Your task to perform on an android device: turn off data saver in the chrome app Image 0: 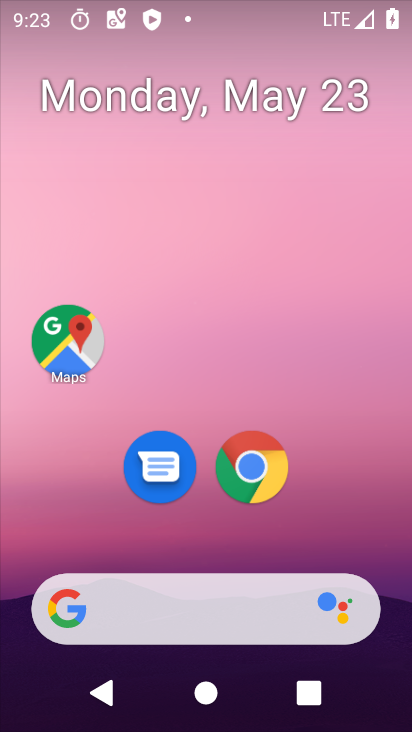
Step 0: click (268, 465)
Your task to perform on an android device: turn off data saver in the chrome app Image 1: 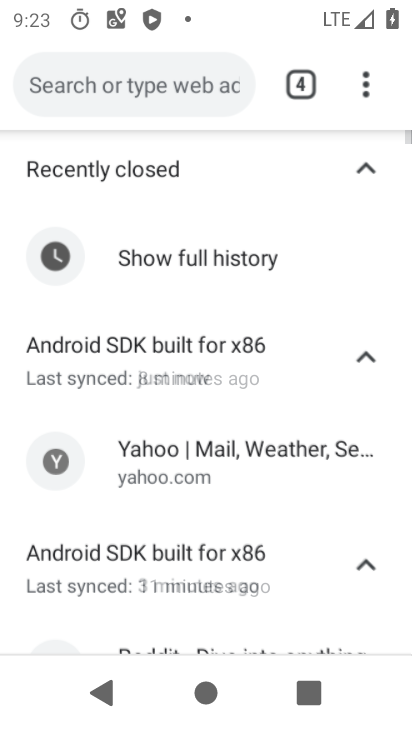
Step 1: click (370, 68)
Your task to perform on an android device: turn off data saver in the chrome app Image 2: 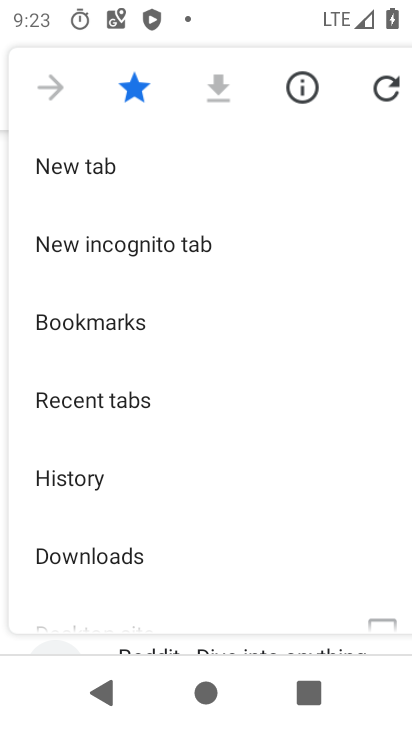
Step 2: drag from (238, 565) to (224, 119)
Your task to perform on an android device: turn off data saver in the chrome app Image 3: 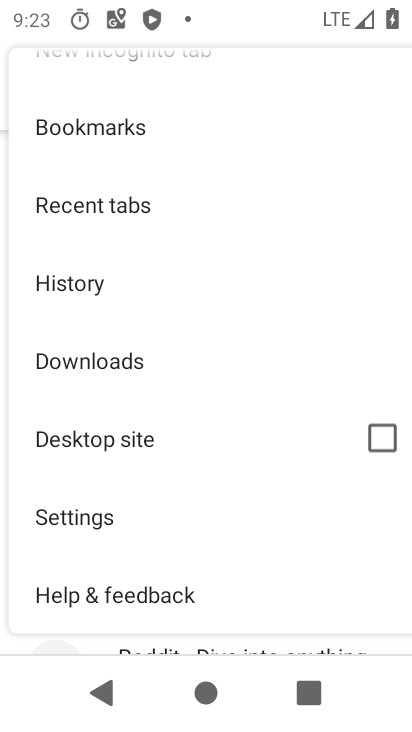
Step 3: click (160, 501)
Your task to perform on an android device: turn off data saver in the chrome app Image 4: 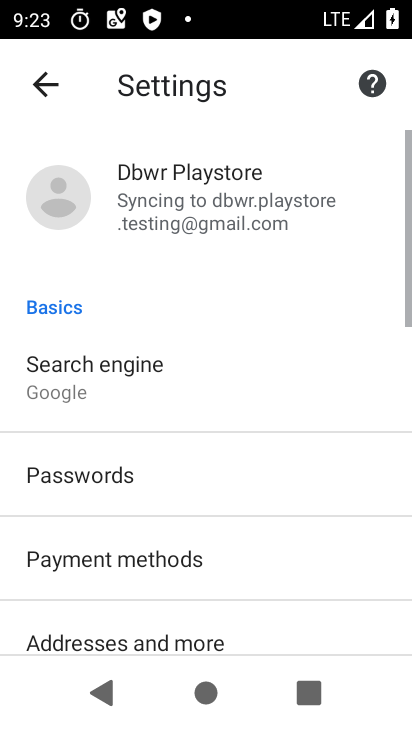
Step 4: drag from (215, 566) to (193, 145)
Your task to perform on an android device: turn off data saver in the chrome app Image 5: 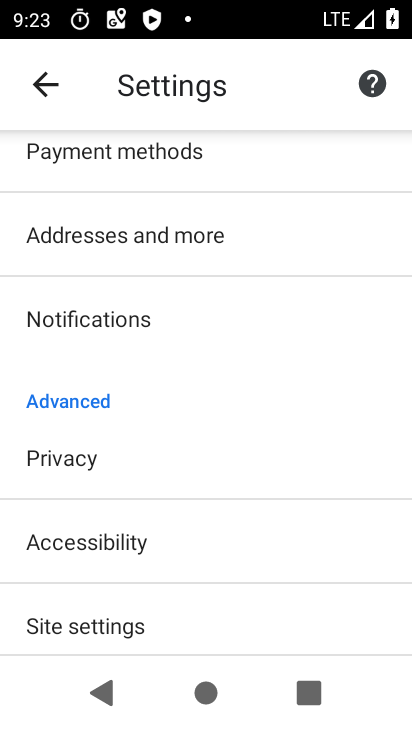
Step 5: drag from (199, 598) to (196, 154)
Your task to perform on an android device: turn off data saver in the chrome app Image 6: 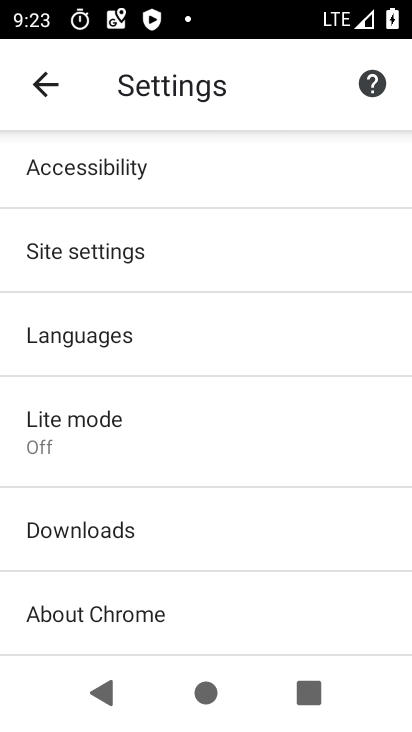
Step 6: click (148, 421)
Your task to perform on an android device: turn off data saver in the chrome app Image 7: 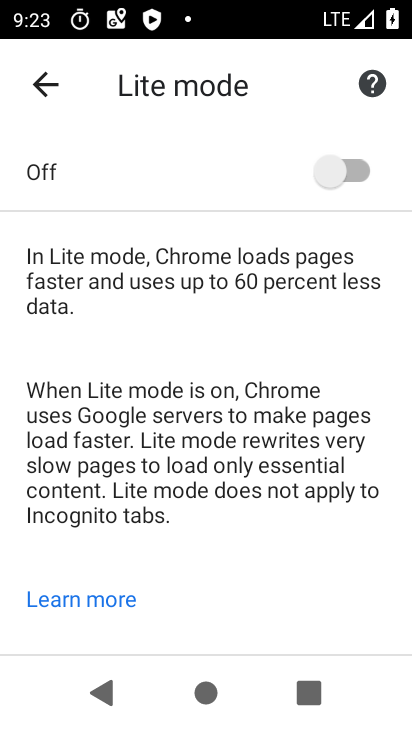
Step 7: task complete